Your task to perform on an android device: turn smart compose on in the gmail app Image 0: 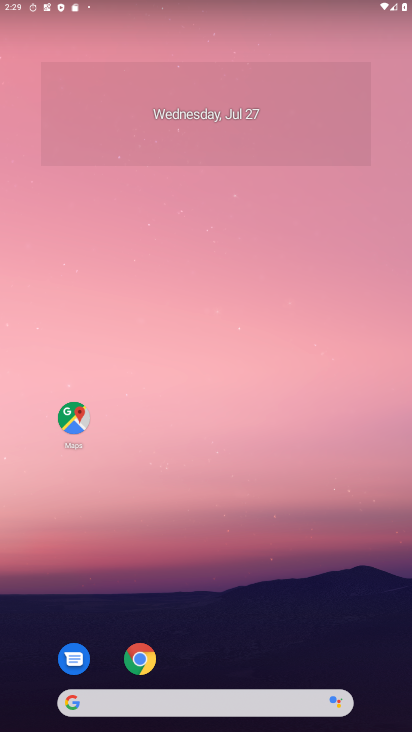
Step 0: drag from (202, 728) to (194, 142)
Your task to perform on an android device: turn smart compose on in the gmail app Image 1: 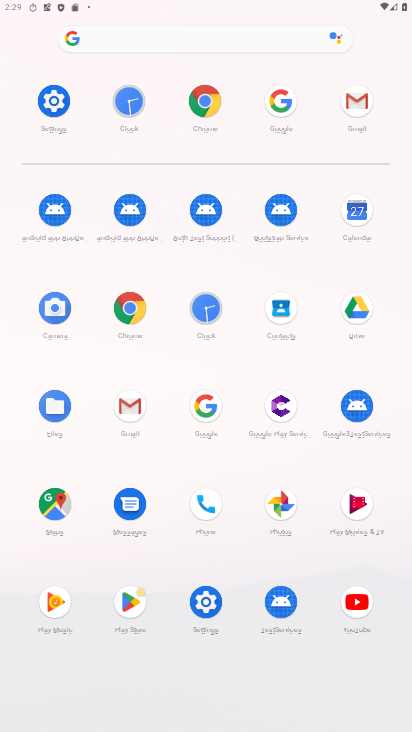
Step 1: click (132, 403)
Your task to perform on an android device: turn smart compose on in the gmail app Image 2: 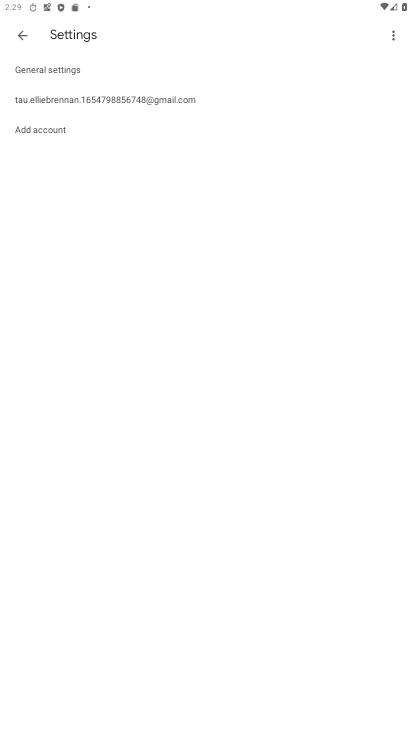
Step 2: click (40, 103)
Your task to perform on an android device: turn smart compose on in the gmail app Image 3: 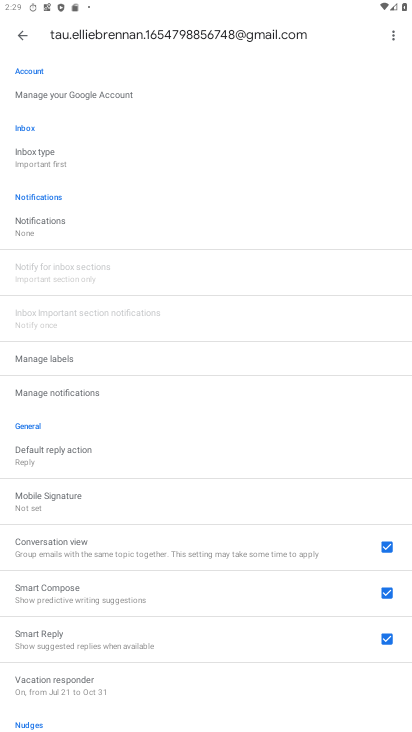
Step 3: task complete